Your task to perform on an android device: Go to accessibility settings Image 0: 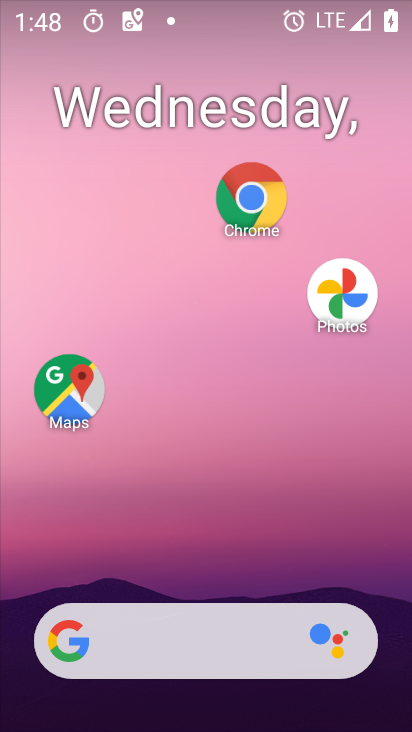
Step 0: drag from (222, 658) to (259, 164)
Your task to perform on an android device: Go to accessibility settings Image 1: 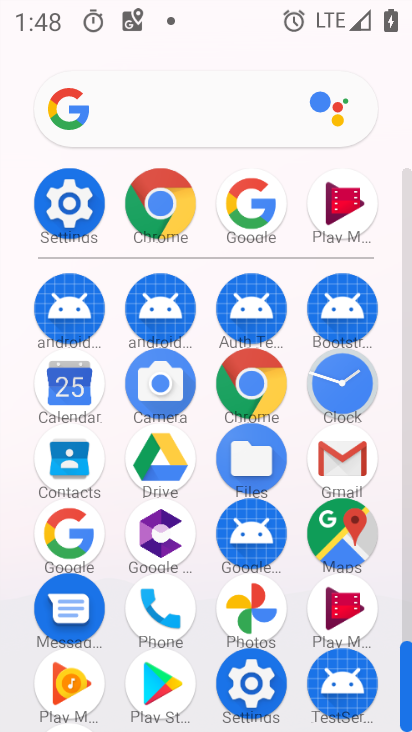
Step 1: drag from (252, 532) to (291, 212)
Your task to perform on an android device: Go to accessibility settings Image 2: 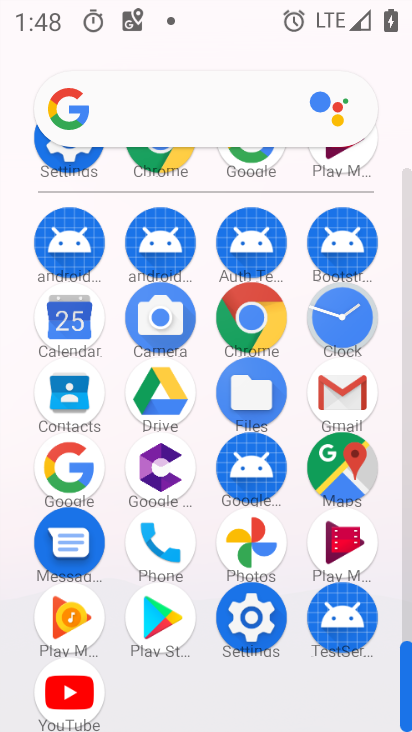
Step 2: click (259, 626)
Your task to perform on an android device: Go to accessibility settings Image 3: 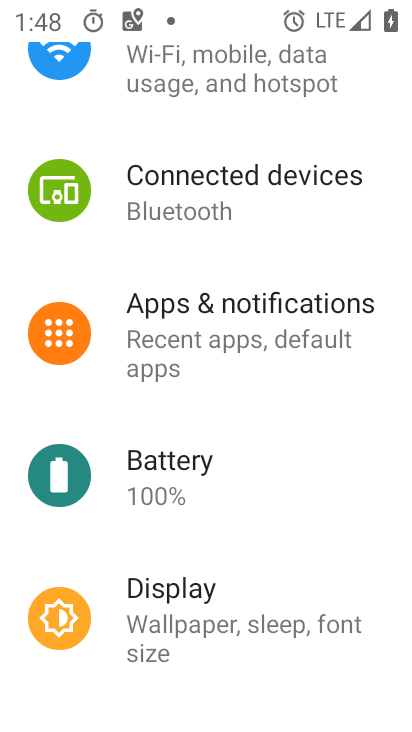
Step 3: drag from (277, 319) to (278, 598)
Your task to perform on an android device: Go to accessibility settings Image 4: 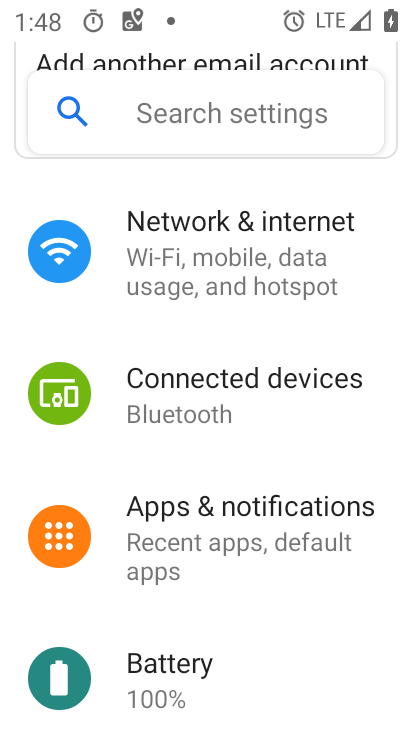
Step 4: drag from (278, 593) to (300, 181)
Your task to perform on an android device: Go to accessibility settings Image 5: 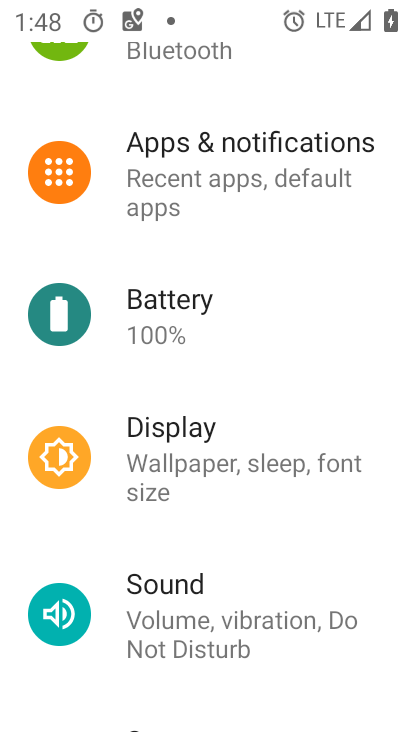
Step 5: drag from (204, 597) to (204, 294)
Your task to perform on an android device: Go to accessibility settings Image 6: 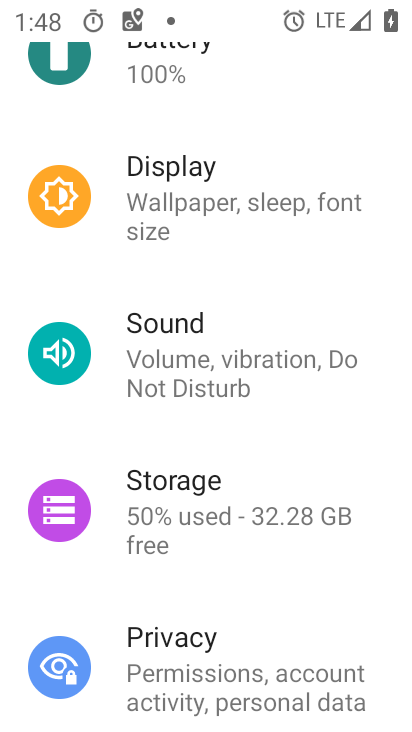
Step 6: drag from (177, 545) to (209, 242)
Your task to perform on an android device: Go to accessibility settings Image 7: 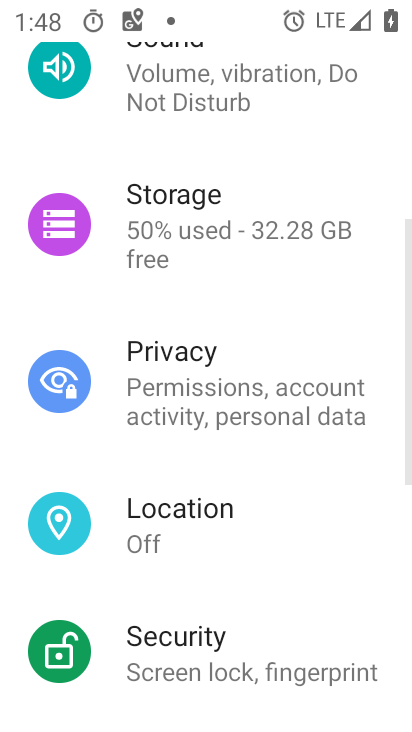
Step 7: drag from (221, 560) to (248, 209)
Your task to perform on an android device: Go to accessibility settings Image 8: 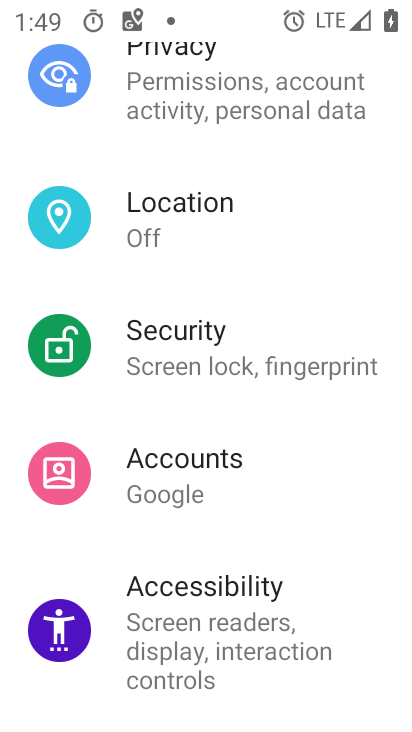
Step 8: click (240, 595)
Your task to perform on an android device: Go to accessibility settings Image 9: 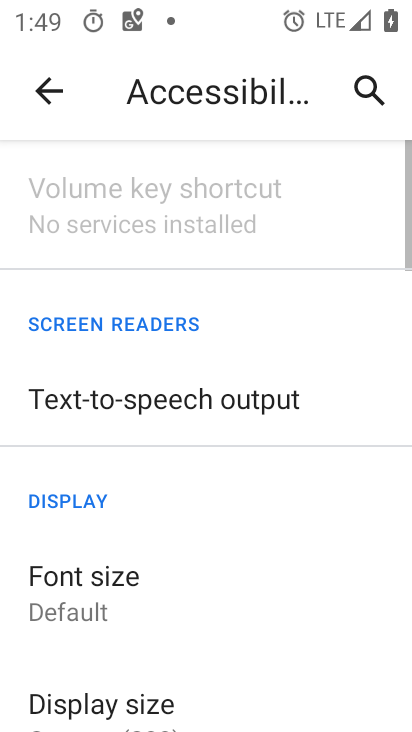
Step 9: task complete